Your task to perform on an android device: Open location settings Image 0: 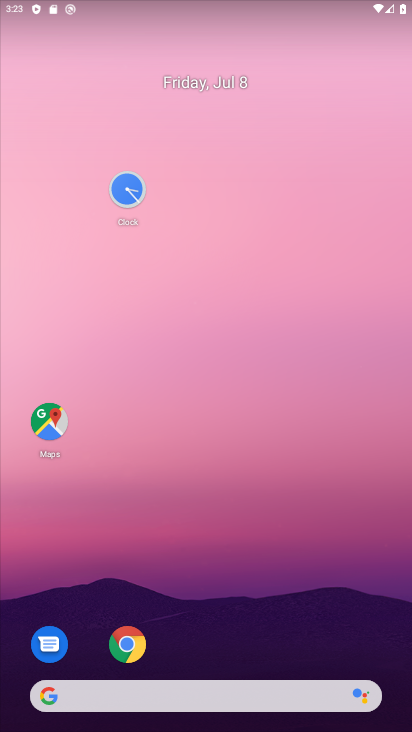
Step 0: drag from (311, 722) to (235, 172)
Your task to perform on an android device: Open location settings Image 1: 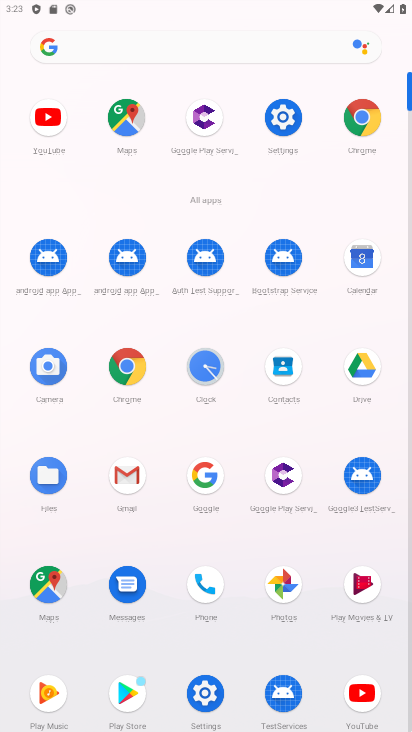
Step 1: click (200, 701)
Your task to perform on an android device: Open location settings Image 2: 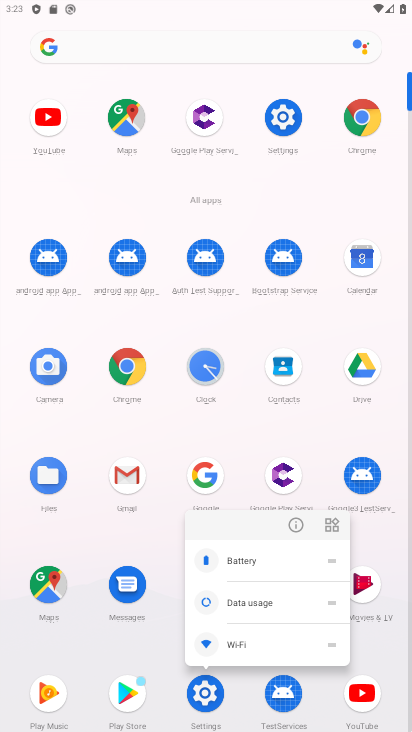
Step 2: click (205, 683)
Your task to perform on an android device: Open location settings Image 3: 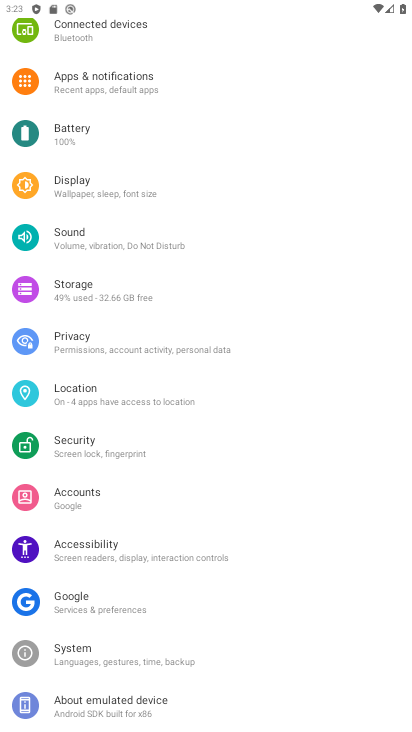
Step 3: click (208, 681)
Your task to perform on an android device: Open location settings Image 4: 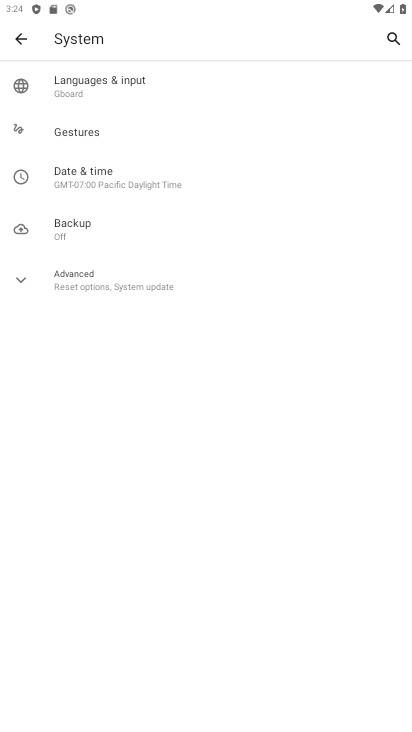
Step 4: click (6, 33)
Your task to perform on an android device: Open location settings Image 5: 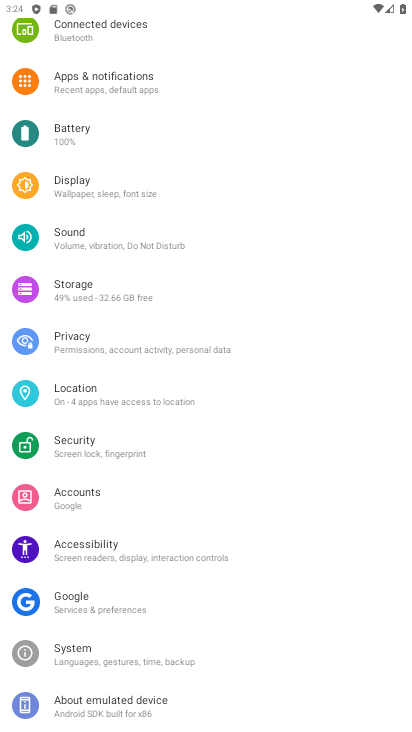
Step 5: click (22, 34)
Your task to perform on an android device: Open location settings Image 6: 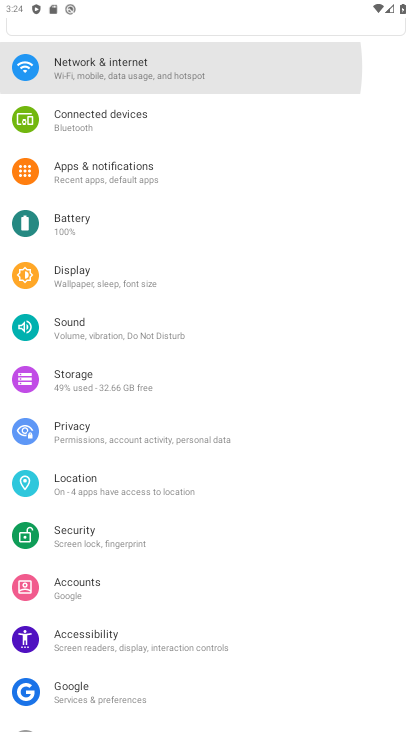
Step 6: click (22, 34)
Your task to perform on an android device: Open location settings Image 7: 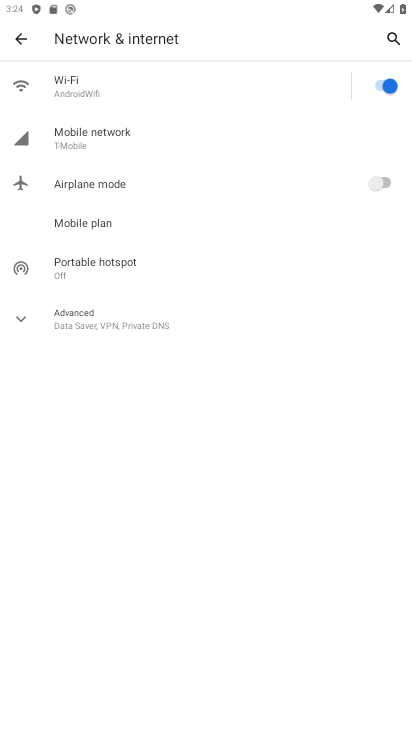
Step 7: click (17, 38)
Your task to perform on an android device: Open location settings Image 8: 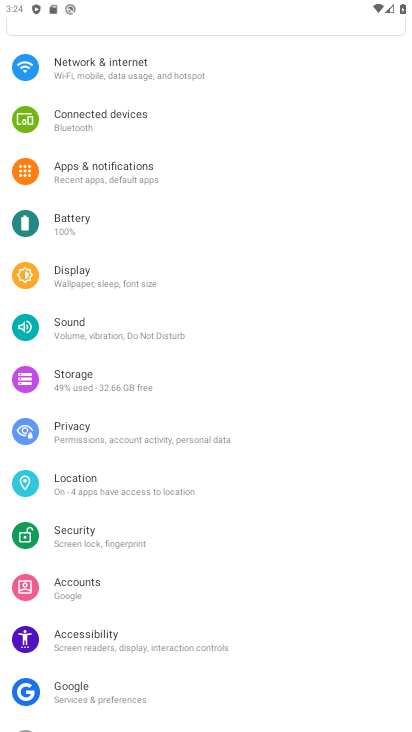
Step 8: click (83, 483)
Your task to perform on an android device: Open location settings Image 9: 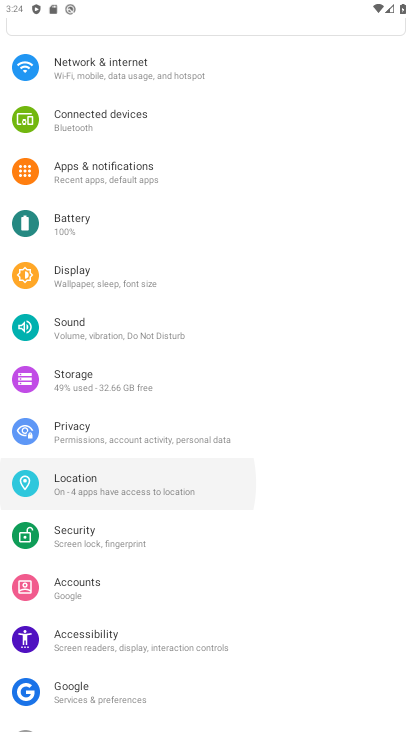
Step 9: click (77, 478)
Your task to perform on an android device: Open location settings Image 10: 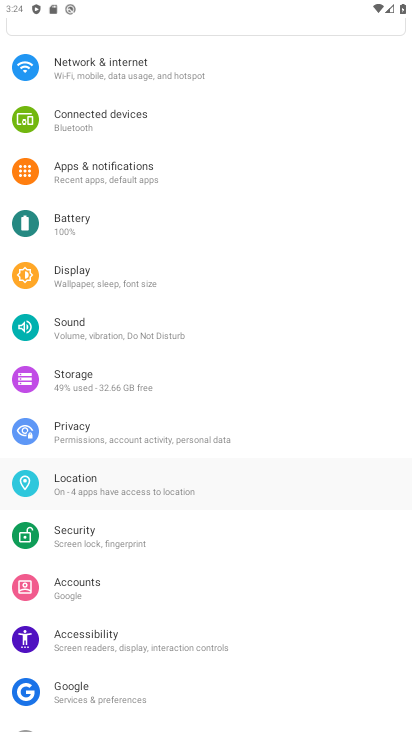
Step 10: click (76, 475)
Your task to perform on an android device: Open location settings Image 11: 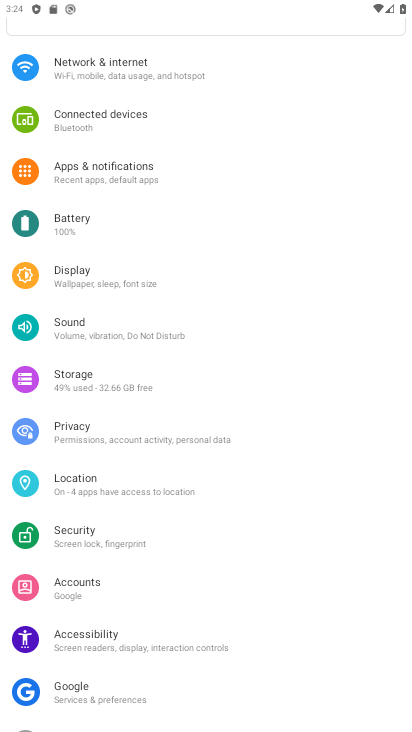
Step 11: click (76, 475)
Your task to perform on an android device: Open location settings Image 12: 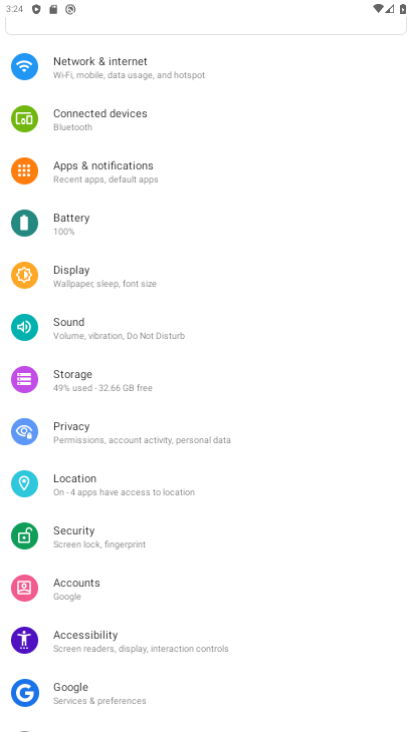
Step 12: click (76, 475)
Your task to perform on an android device: Open location settings Image 13: 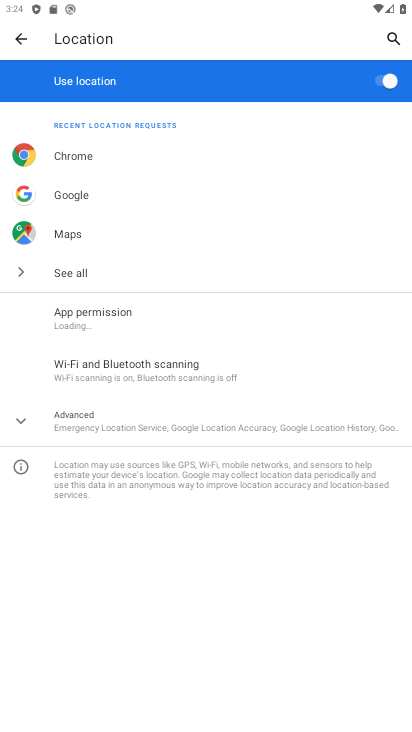
Step 13: click (76, 475)
Your task to perform on an android device: Open location settings Image 14: 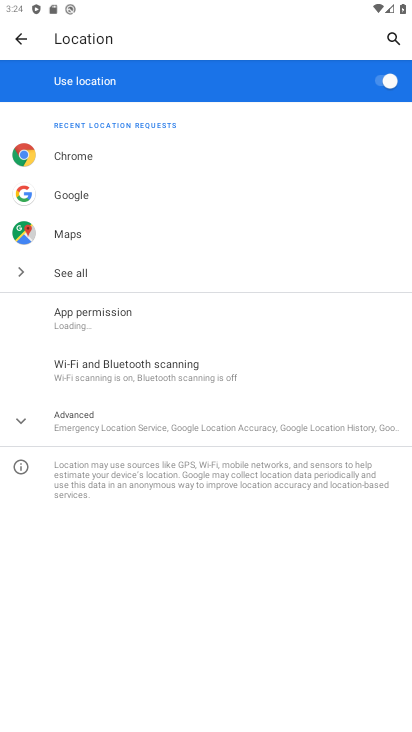
Step 14: task complete